Your task to perform on an android device: turn pop-ups on in chrome Image 0: 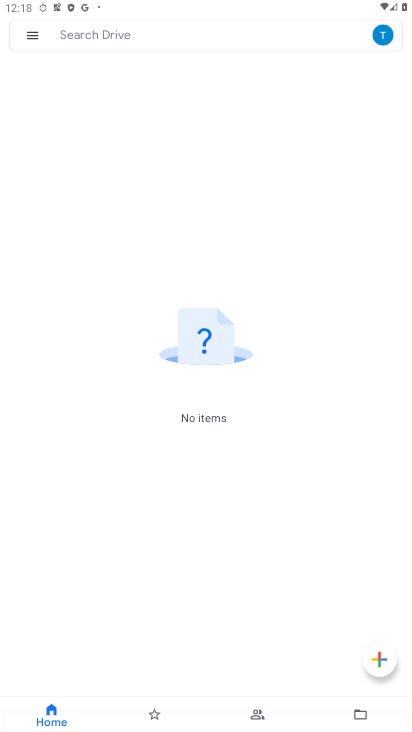
Step 0: press home button
Your task to perform on an android device: turn pop-ups on in chrome Image 1: 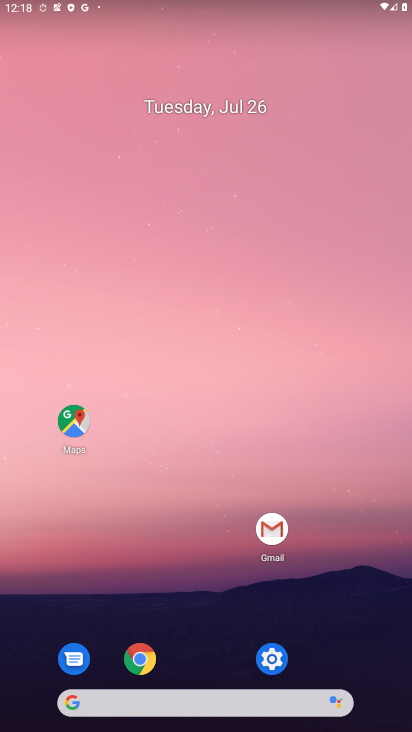
Step 1: click (134, 668)
Your task to perform on an android device: turn pop-ups on in chrome Image 2: 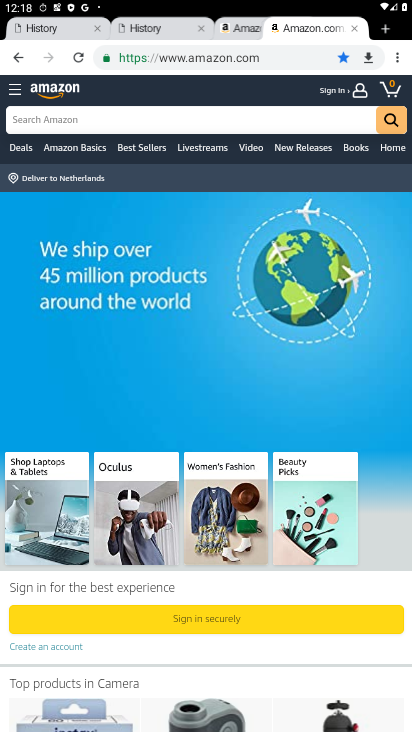
Step 2: click (399, 57)
Your task to perform on an android device: turn pop-ups on in chrome Image 3: 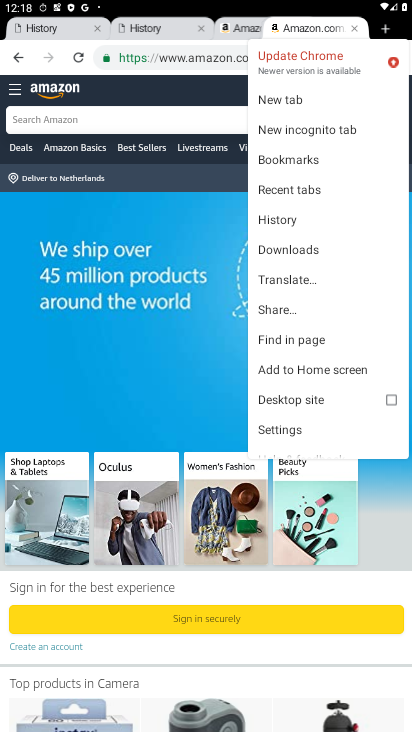
Step 3: click (280, 428)
Your task to perform on an android device: turn pop-ups on in chrome Image 4: 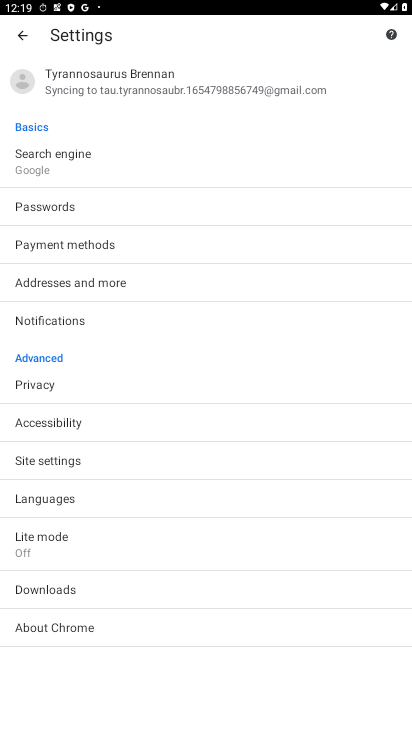
Step 4: click (80, 459)
Your task to perform on an android device: turn pop-ups on in chrome Image 5: 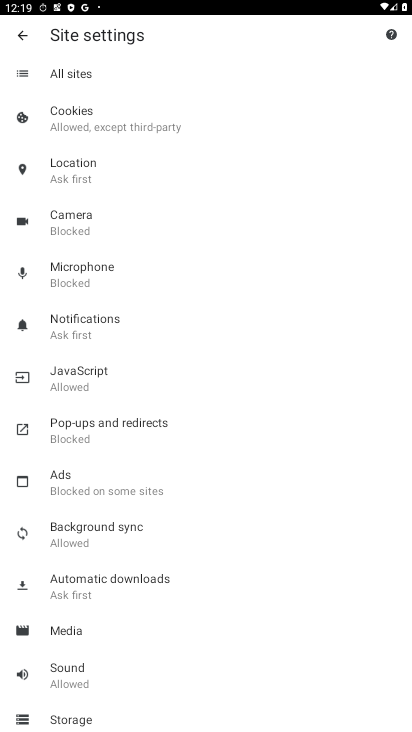
Step 5: click (84, 429)
Your task to perform on an android device: turn pop-ups on in chrome Image 6: 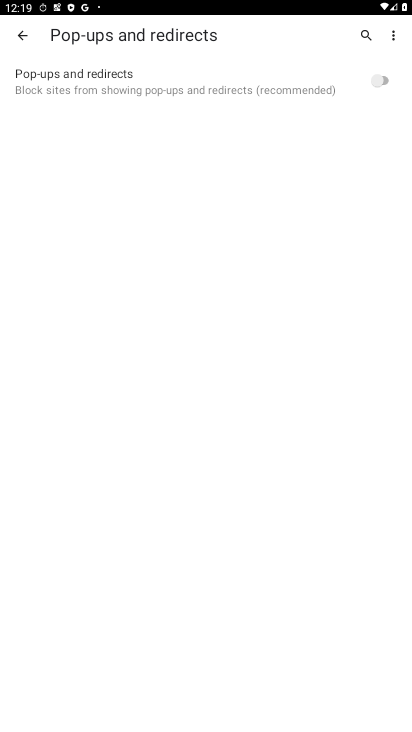
Step 6: click (377, 74)
Your task to perform on an android device: turn pop-ups on in chrome Image 7: 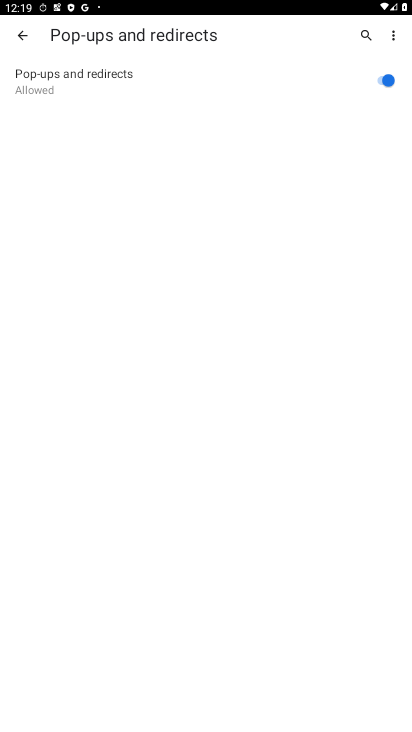
Step 7: task complete